Your task to perform on an android device: add a contact Image 0: 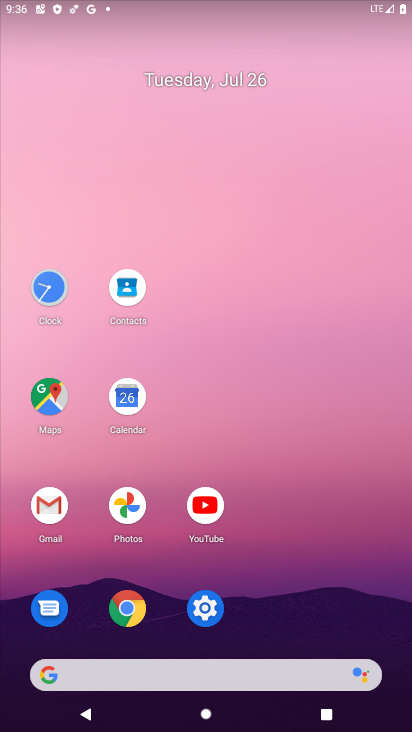
Step 0: click (118, 289)
Your task to perform on an android device: add a contact Image 1: 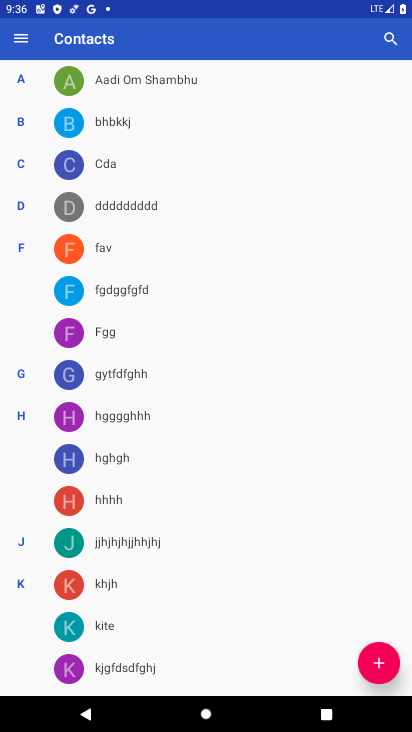
Step 1: click (384, 662)
Your task to perform on an android device: add a contact Image 2: 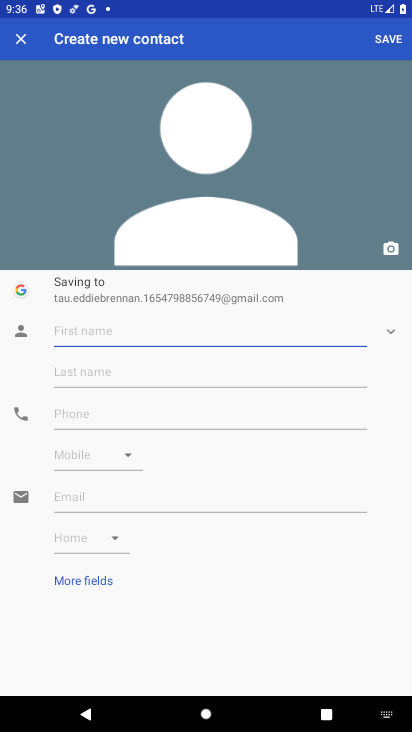
Step 2: type "aa"
Your task to perform on an android device: add a contact Image 3: 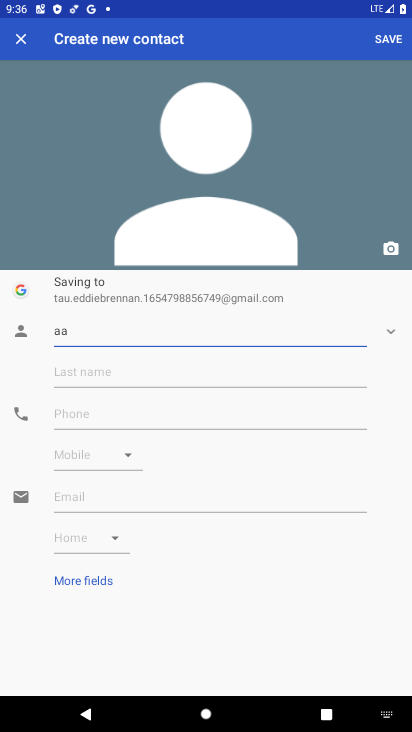
Step 3: click (127, 414)
Your task to perform on an android device: add a contact Image 4: 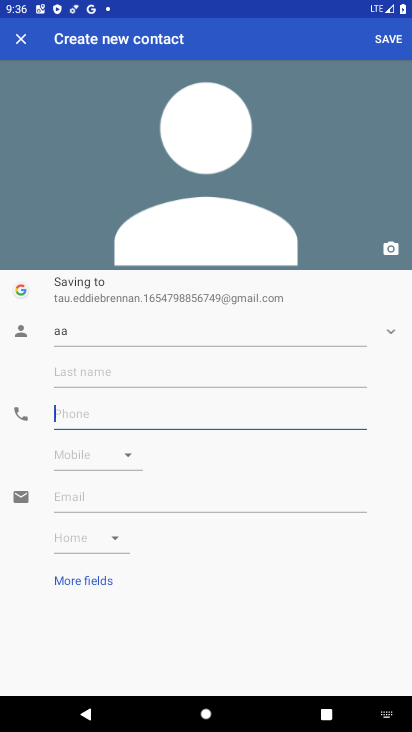
Step 4: type "12345678"
Your task to perform on an android device: add a contact Image 5: 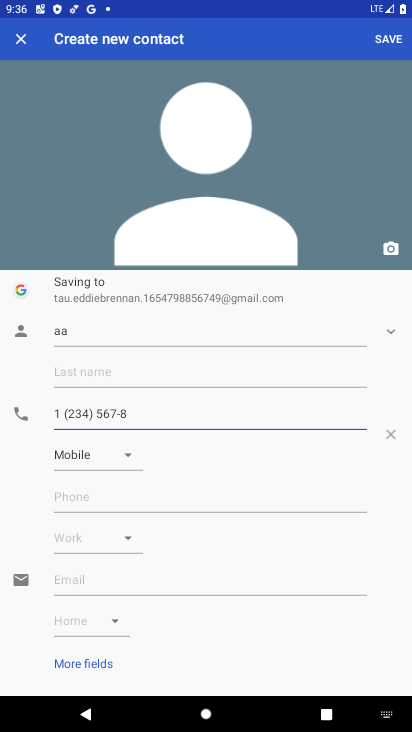
Step 5: click (389, 38)
Your task to perform on an android device: add a contact Image 6: 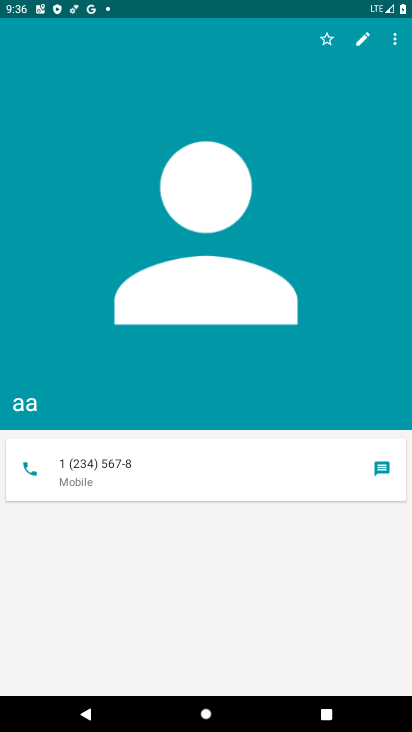
Step 6: task complete